Your task to perform on an android device: empty trash in the gmail app Image 0: 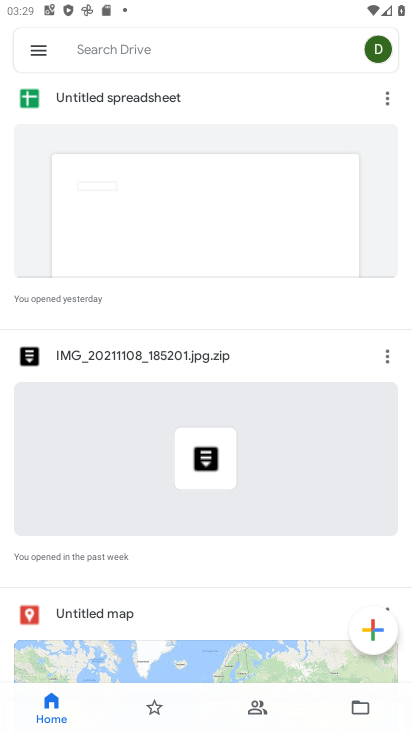
Step 0: press home button
Your task to perform on an android device: empty trash in the gmail app Image 1: 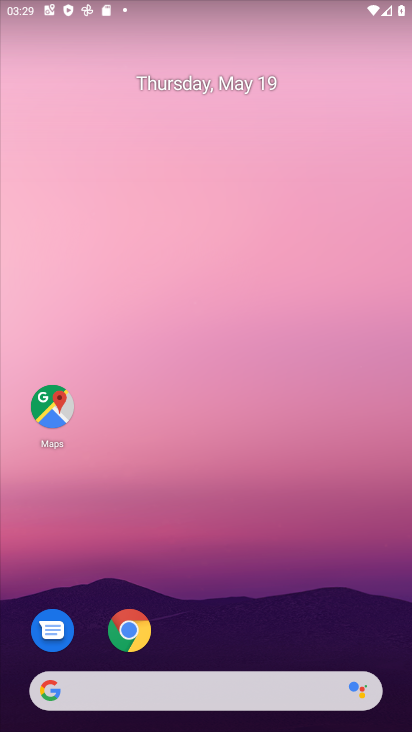
Step 1: drag from (374, 625) to (353, 69)
Your task to perform on an android device: empty trash in the gmail app Image 2: 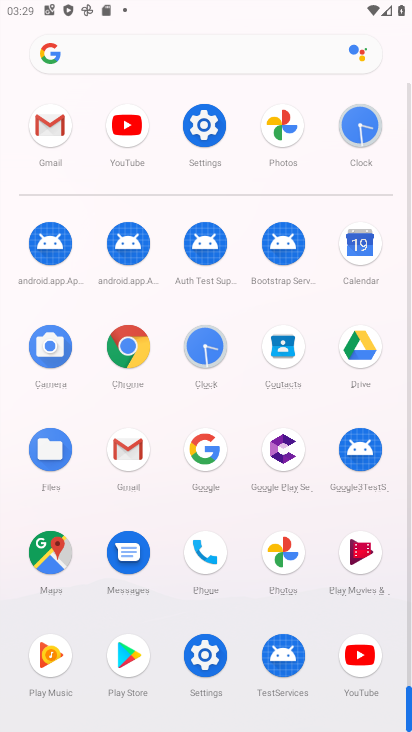
Step 2: click (127, 441)
Your task to perform on an android device: empty trash in the gmail app Image 3: 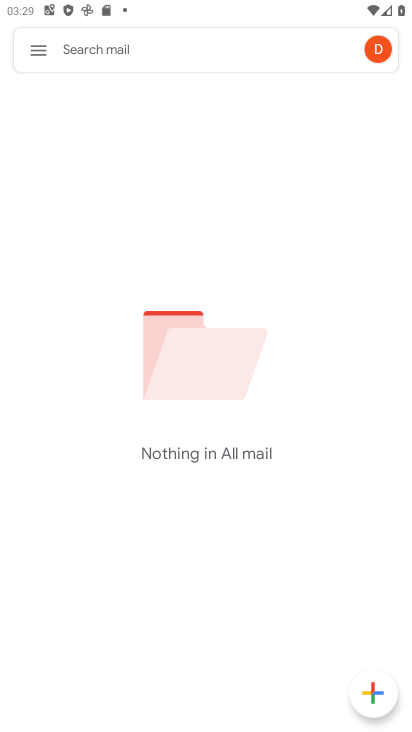
Step 3: click (36, 47)
Your task to perform on an android device: empty trash in the gmail app Image 4: 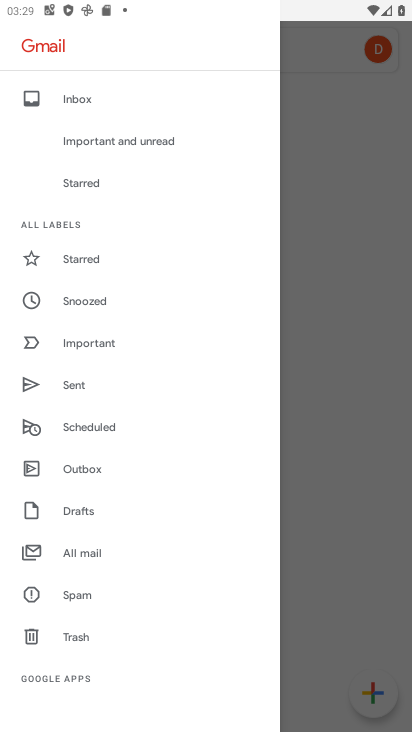
Step 4: click (74, 637)
Your task to perform on an android device: empty trash in the gmail app Image 5: 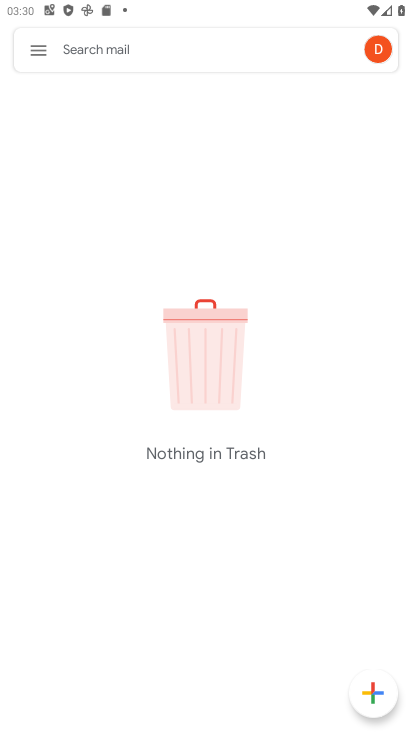
Step 5: task complete